Your task to perform on an android device: toggle show notifications on the lock screen Image 0: 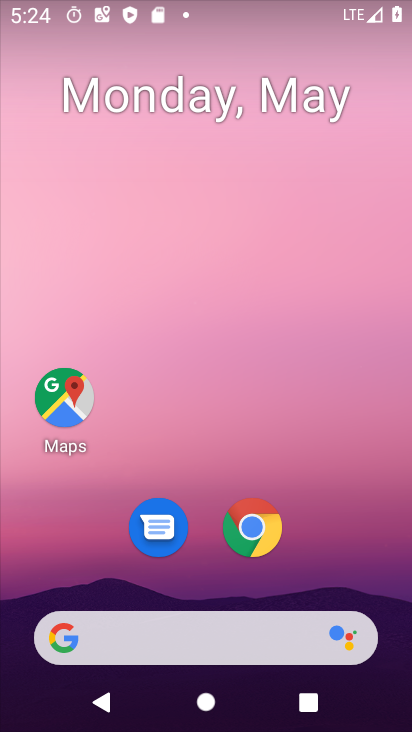
Step 0: drag from (394, 594) to (371, 276)
Your task to perform on an android device: toggle show notifications on the lock screen Image 1: 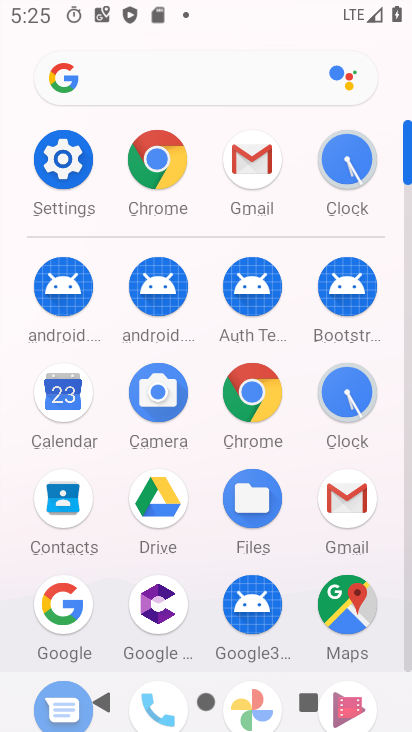
Step 1: click (38, 161)
Your task to perform on an android device: toggle show notifications on the lock screen Image 2: 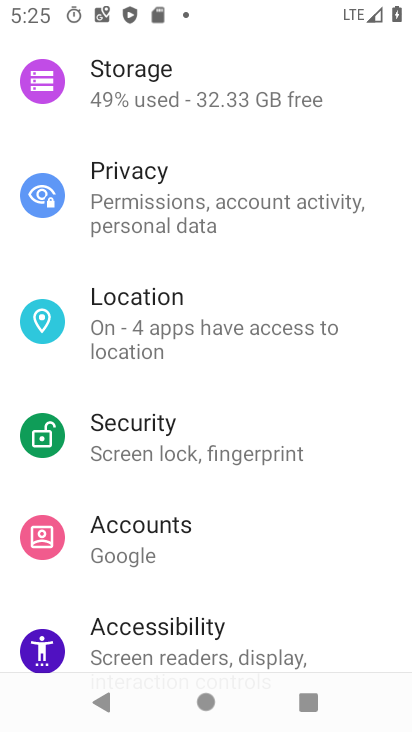
Step 2: drag from (332, 83) to (388, 691)
Your task to perform on an android device: toggle show notifications on the lock screen Image 3: 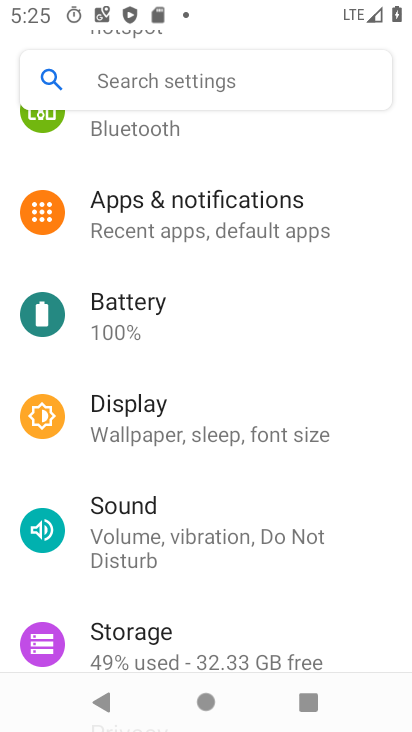
Step 3: click (205, 208)
Your task to perform on an android device: toggle show notifications on the lock screen Image 4: 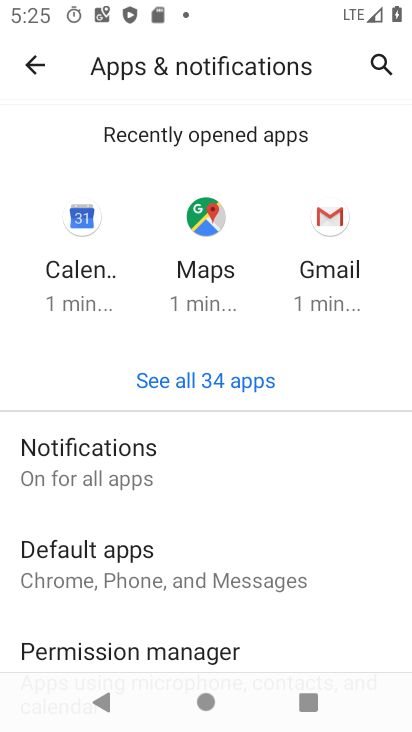
Step 4: click (94, 470)
Your task to perform on an android device: toggle show notifications on the lock screen Image 5: 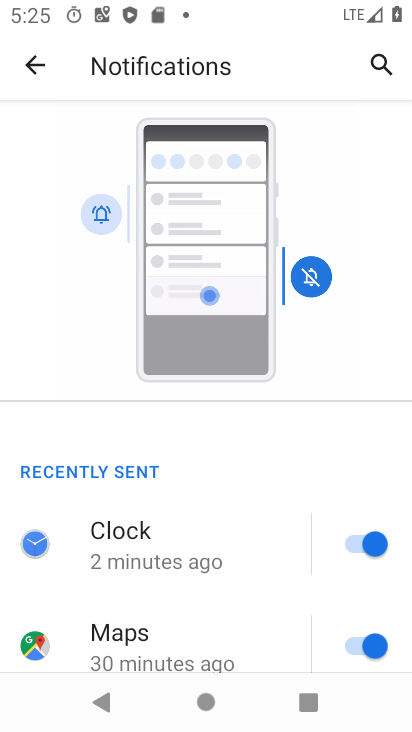
Step 5: drag from (278, 638) to (206, 68)
Your task to perform on an android device: toggle show notifications on the lock screen Image 6: 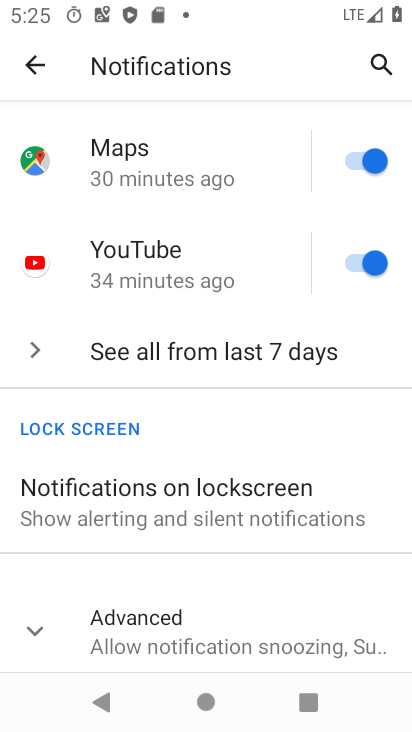
Step 6: click (165, 511)
Your task to perform on an android device: toggle show notifications on the lock screen Image 7: 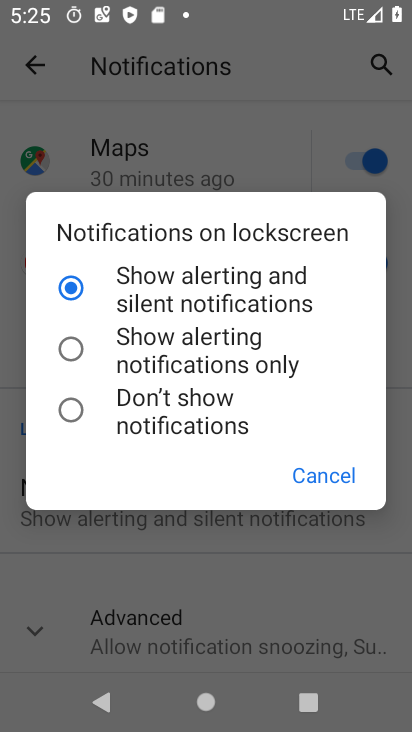
Step 7: click (65, 342)
Your task to perform on an android device: toggle show notifications on the lock screen Image 8: 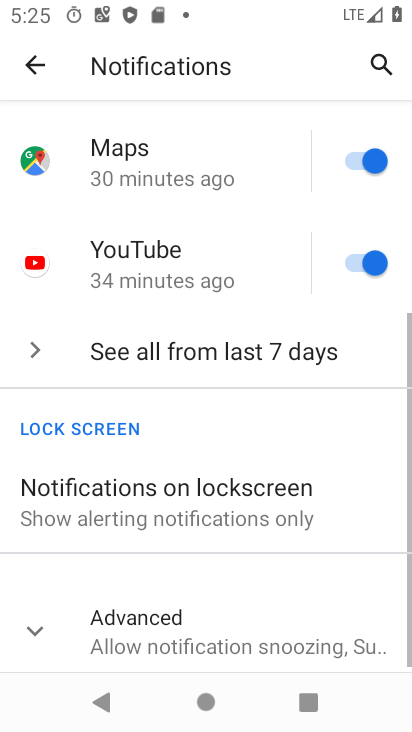
Step 8: task complete